Your task to perform on an android device: Go to Wikipedia Image 0: 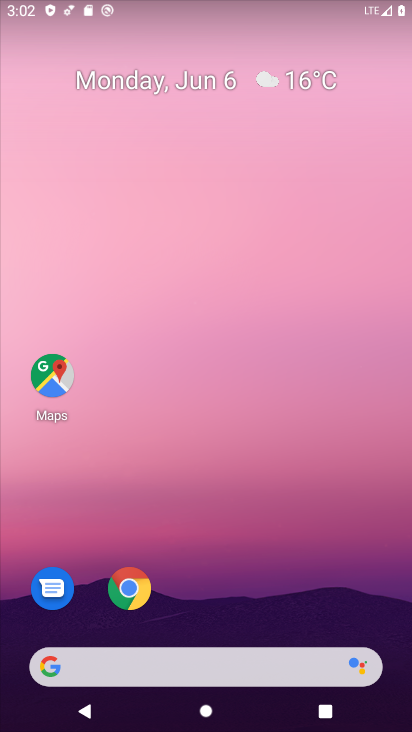
Step 0: click (133, 588)
Your task to perform on an android device: Go to Wikipedia Image 1: 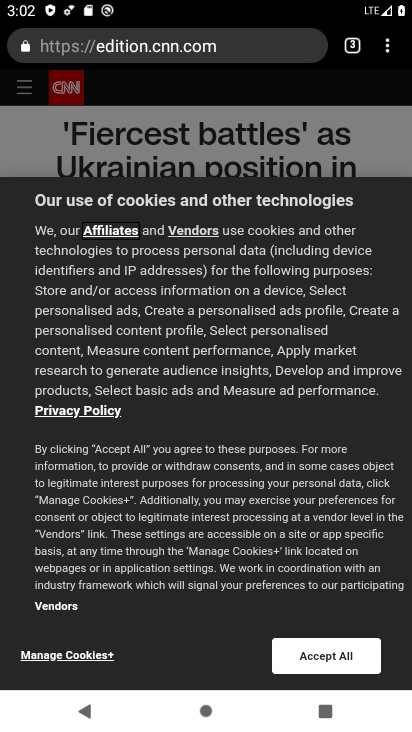
Step 1: click (215, 35)
Your task to perform on an android device: Go to Wikipedia Image 2: 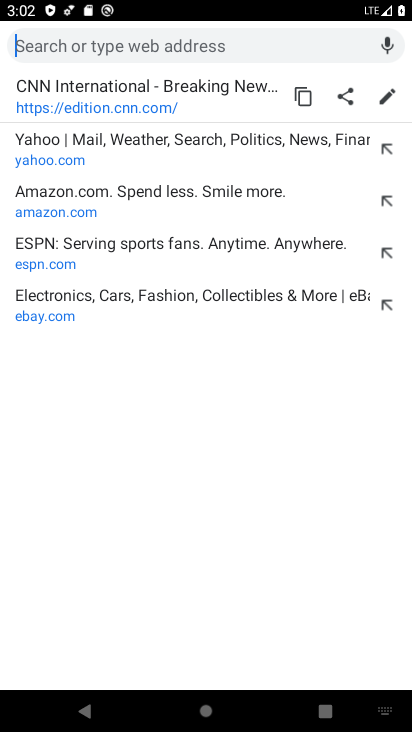
Step 2: type "wikipedia"
Your task to perform on an android device: Go to Wikipedia Image 3: 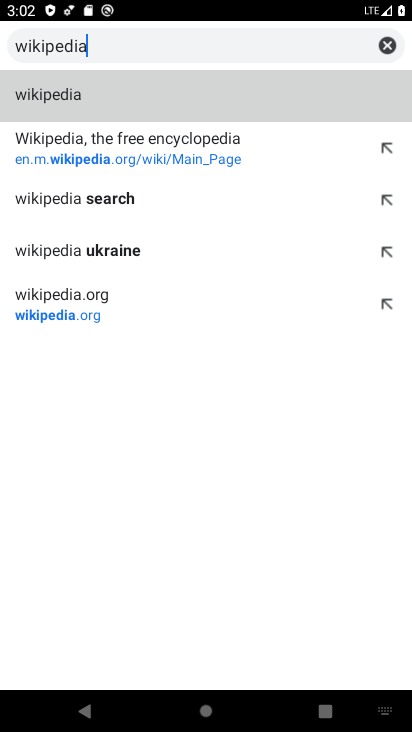
Step 3: click (112, 296)
Your task to perform on an android device: Go to Wikipedia Image 4: 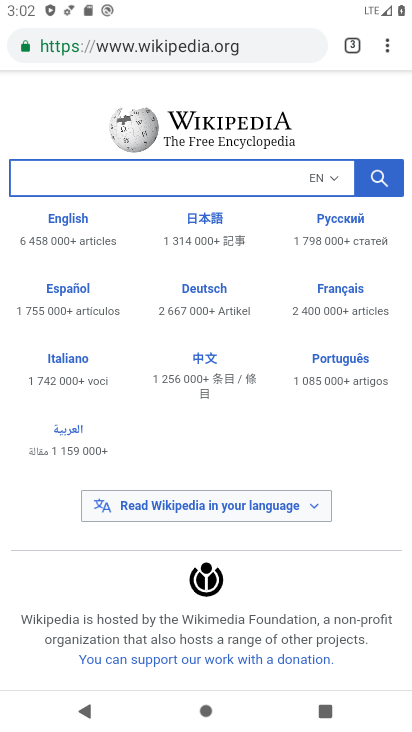
Step 4: task complete